Your task to perform on an android device: Search for pizza restaurants on Maps Image 0: 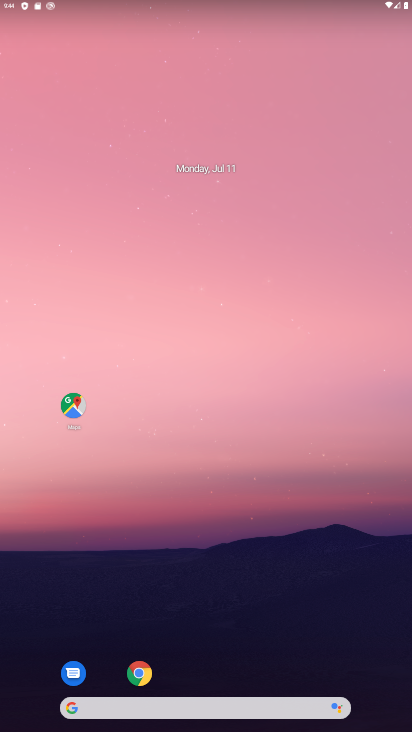
Step 0: drag from (182, 667) to (276, 77)
Your task to perform on an android device: Search for pizza restaurants on Maps Image 1: 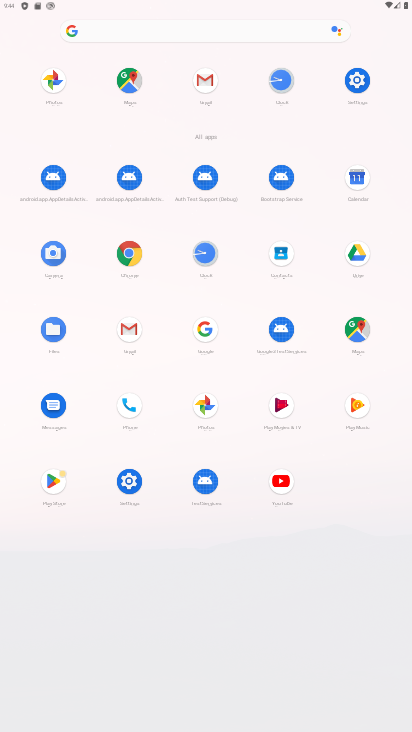
Step 1: click (356, 335)
Your task to perform on an android device: Search for pizza restaurants on Maps Image 2: 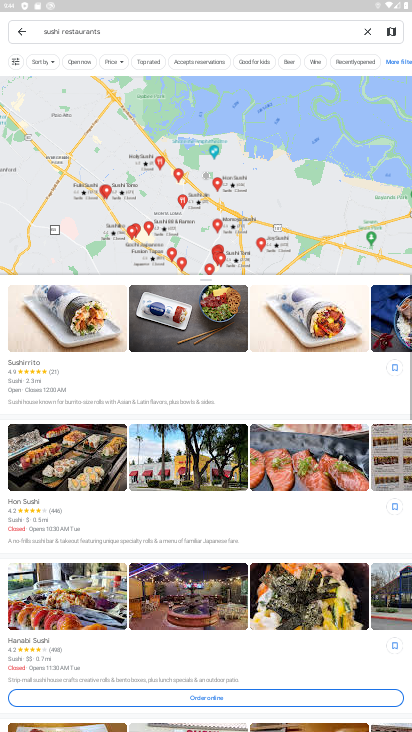
Step 2: click (359, 29)
Your task to perform on an android device: Search for pizza restaurants on Maps Image 3: 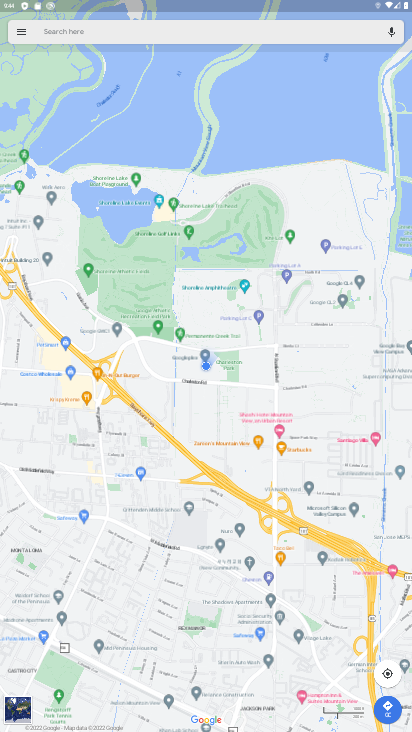
Step 3: click (281, 28)
Your task to perform on an android device: Search for pizza restaurants on Maps Image 4: 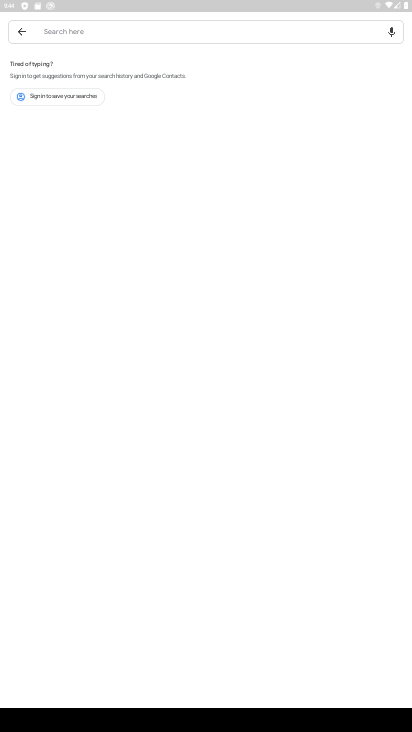
Step 4: type "Pizza restaurants"
Your task to perform on an android device: Search for pizza restaurants on Maps Image 5: 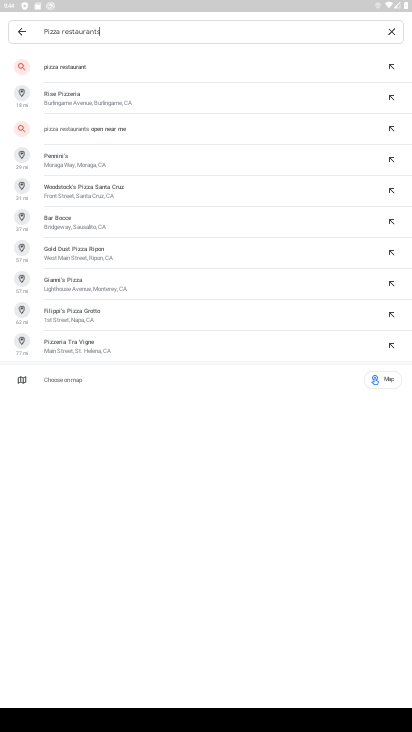
Step 5: click (78, 65)
Your task to perform on an android device: Search for pizza restaurants on Maps Image 6: 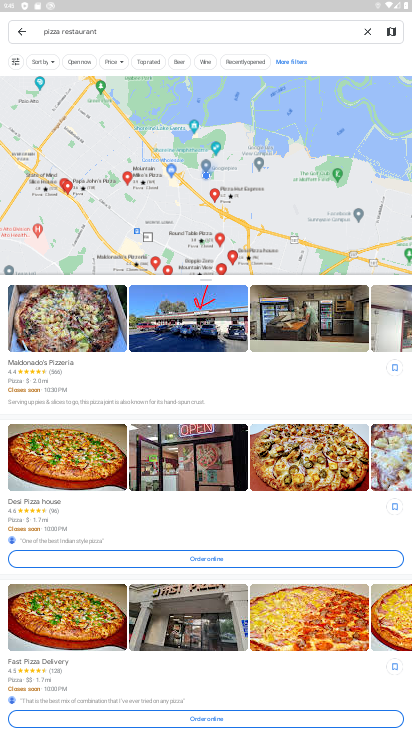
Step 6: task complete